Your task to perform on an android device: delete browsing data in the chrome app Image 0: 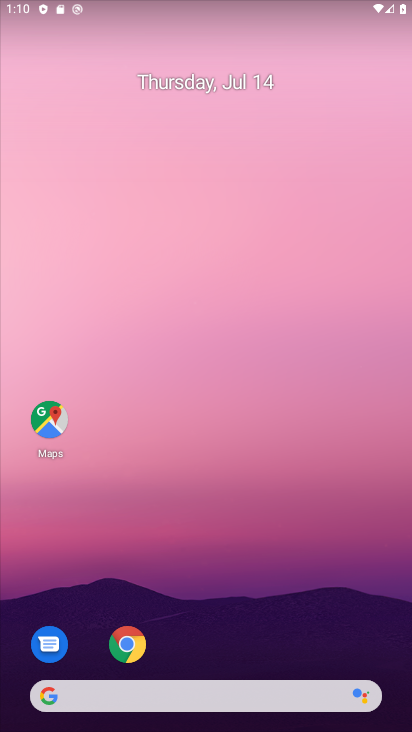
Step 0: drag from (213, 660) to (241, 91)
Your task to perform on an android device: delete browsing data in the chrome app Image 1: 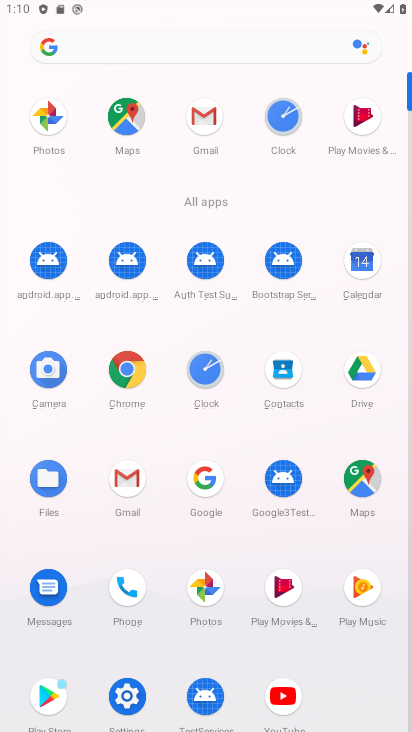
Step 1: click (128, 368)
Your task to perform on an android device: delete browsing data in the chrome app Image 2: 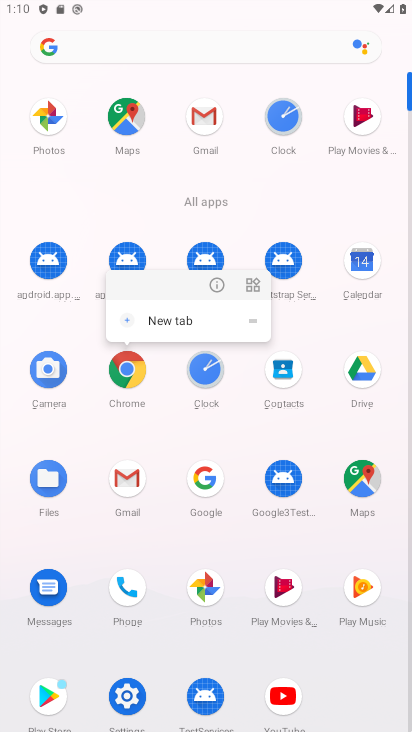
Step 2: click (128, 368)
Your task to perform on an android device: delete browsing data in the chrome app Image 3: 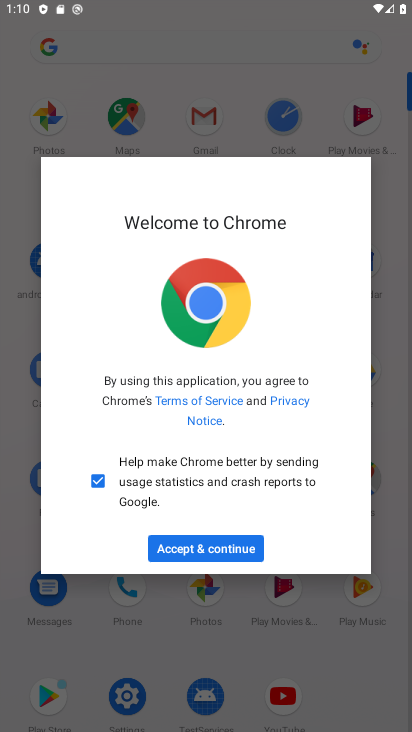
Step 3: click (184, 562)
Your task to perform on an android device: delete browsing data in the chrome app Image 4: 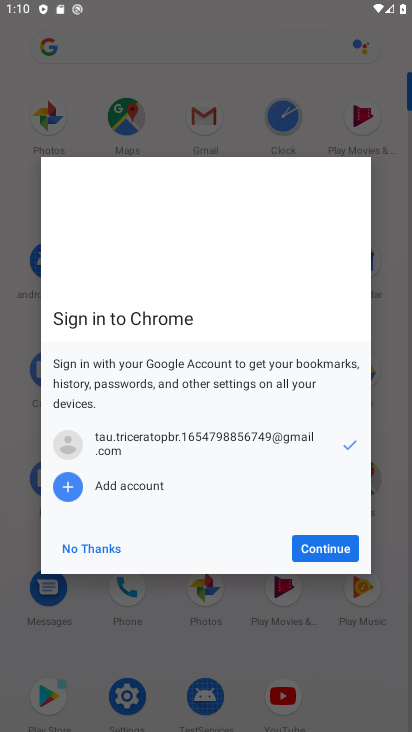
Step 4: click (335, 545)
Your task to perform on an android device: delete browsing data in the chrome app Image 5: 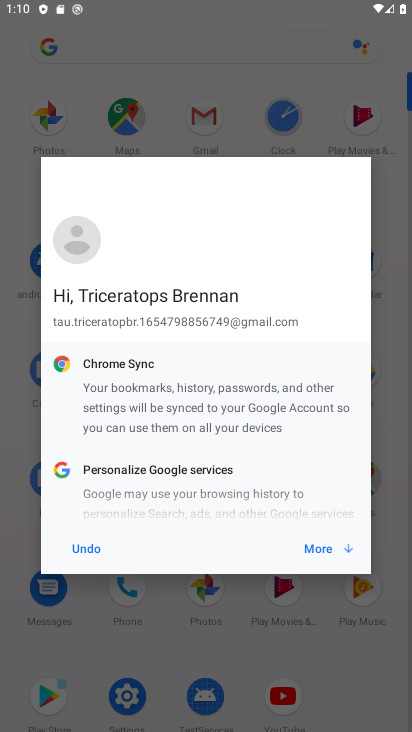
Step 5: click (330, 548)
Your task to perform on an android device: delete browsing data in the chrome app Image 6: 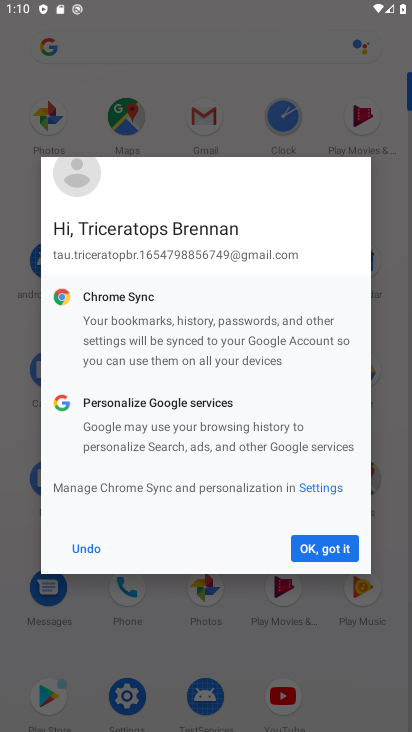
Step 6: click (333, 553)
Your task to perform on an android device: delete browsing data in the chrome app Image 7: 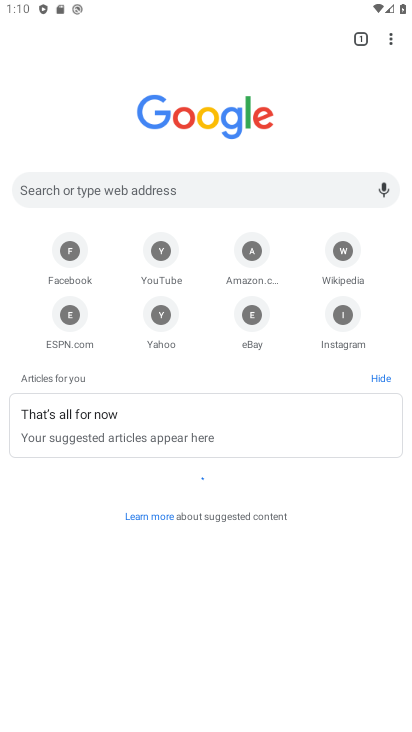
Step 7: drag from (392, 46) to (326, 326)
Your task to perform on an android device: delete browsing data in the chrome app Image 8: 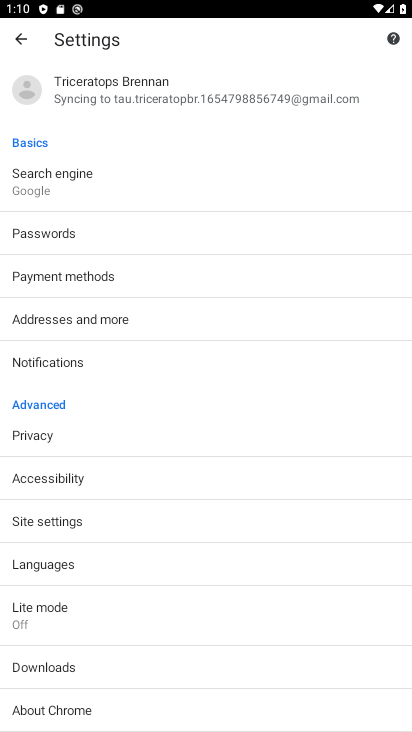
Step 8: click (104, 443)
Your task to perform on an android device: delete browsing data in the chrome app Image 9: 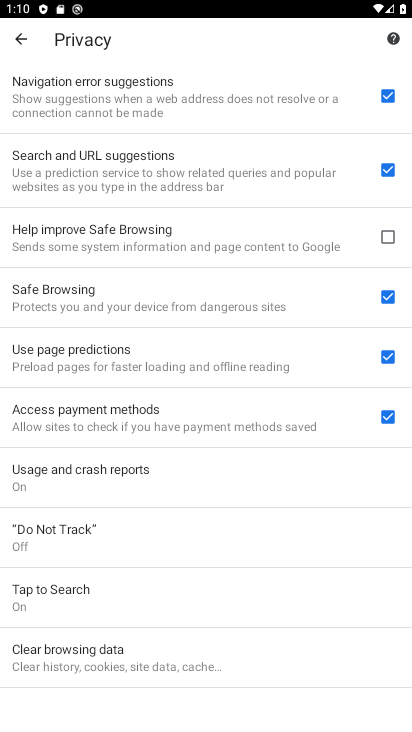
Step 9: drag from (85, 682) to (192, 374)
Your task to perform on an android device: delete browsing data in the chrome app Image 10: 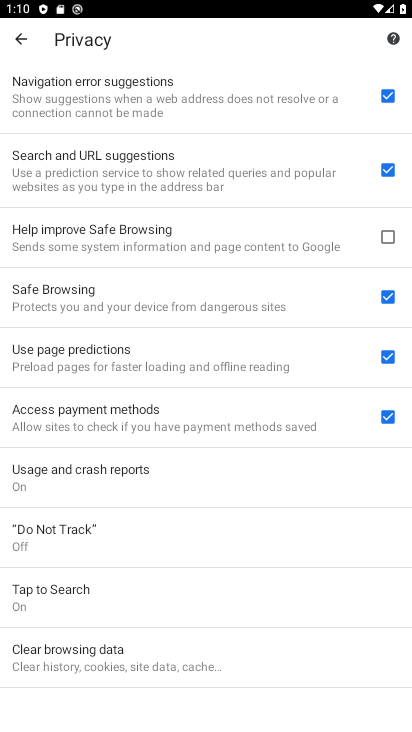
Step 10: click (165, 667)
Your task to perform on an android device: delete browsing data in the chrome app Image 11: 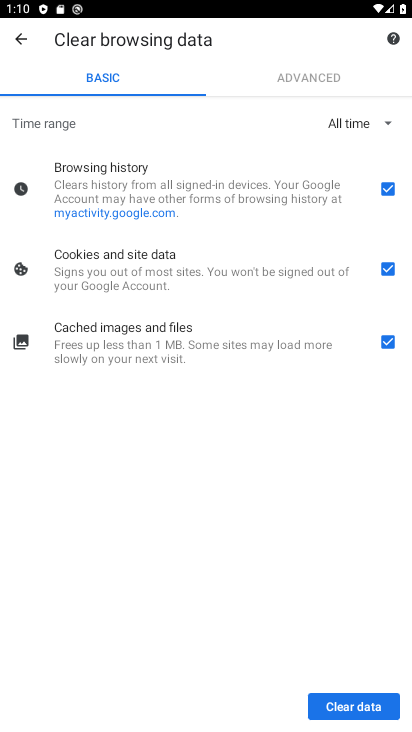
Step 11: click (382, 691)
Your task to perform on an android device: delete browsing data in the chrome app Image 12: 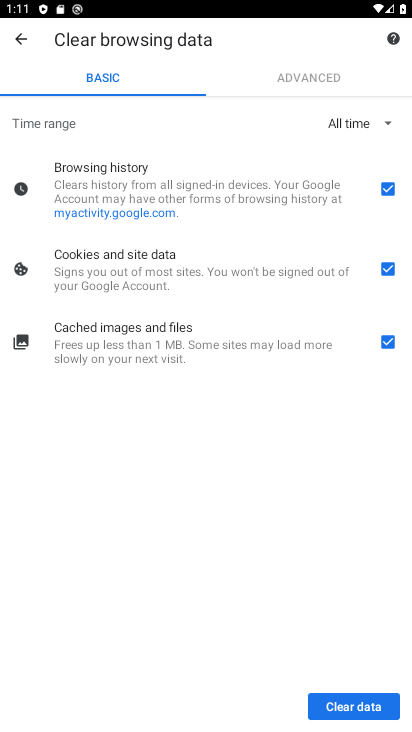
Step 12: click (390, 710)
Your task to perform on an android device: delete browsing data in the chrome app Image 13: 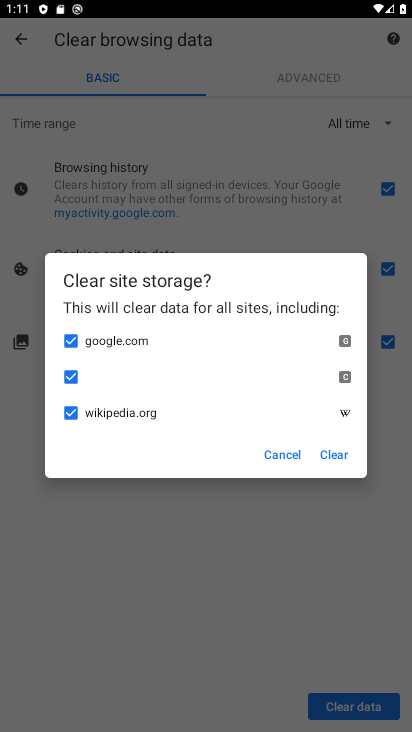
Step 13: click (336, 464)
Your task to perform on an android device: delete browsing data in the chrome app Image 14: 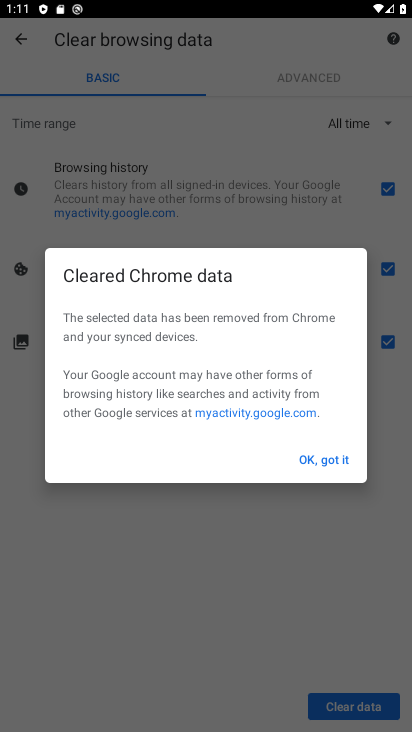
Step 14: click (336, 464)
Your task to perform on an android device: delete browsing data in the chrome app Image 15: 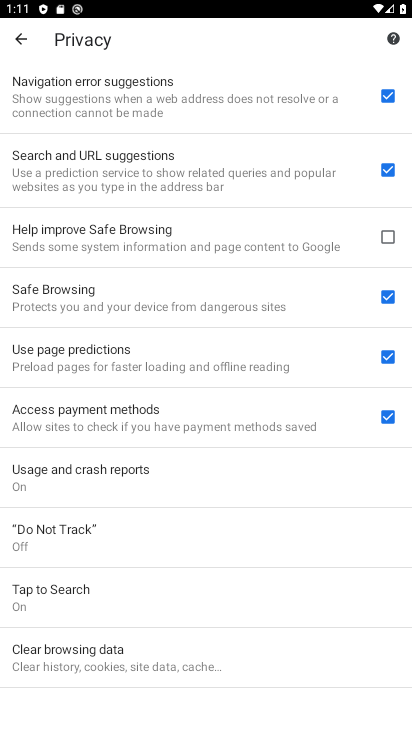
Step 15: task complete